Your task to perform on an android device: uninstall "Contacts" Image 0: 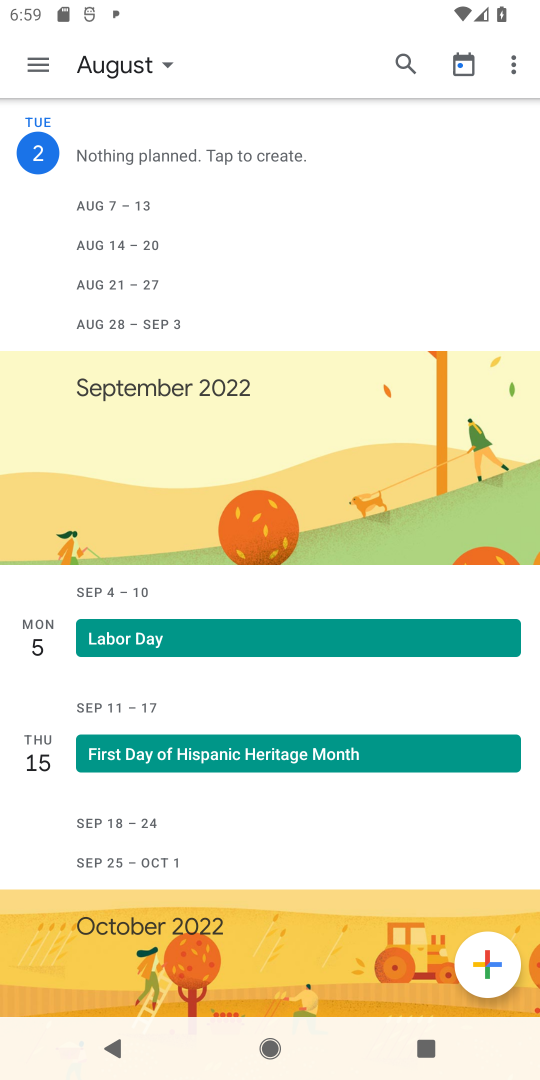
Step 0: press home button
Your task to perform on an android device: uninstall "Contacts" Image 1: 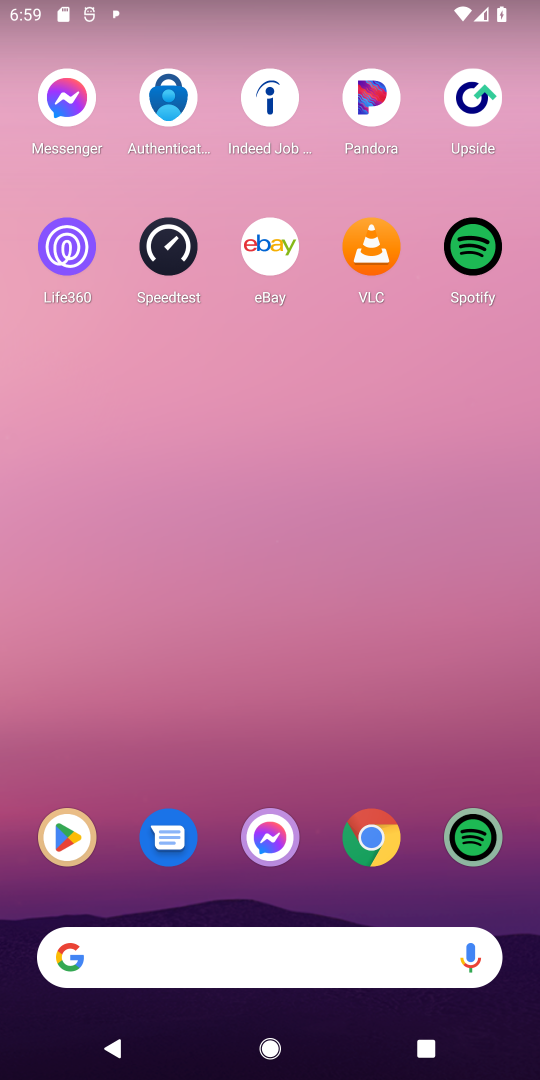
Step 1: click (74, 839)
Your task to perform on an android device: uninstall "Contacts" Image 2: 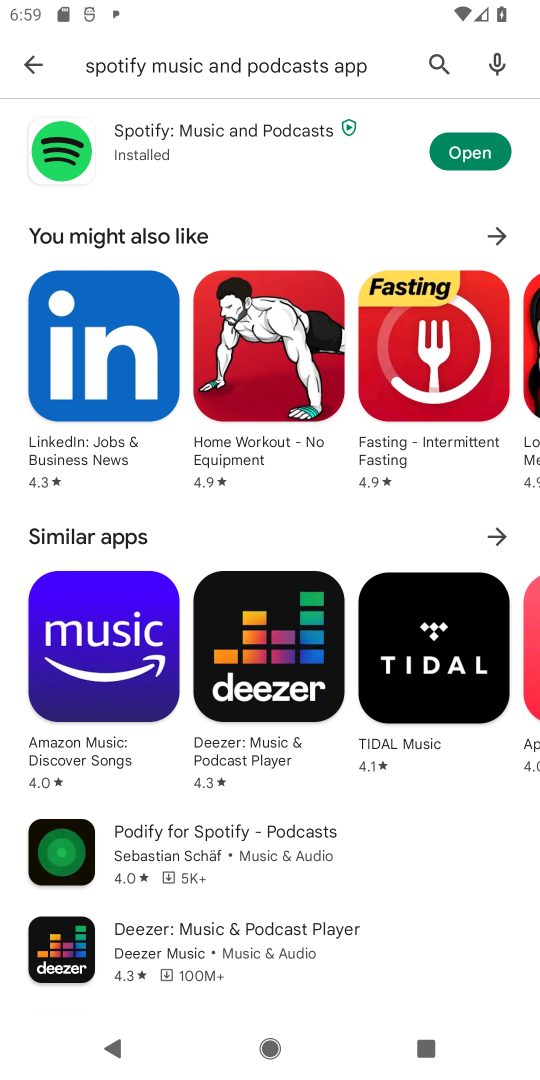
Step 2: click (439, 73)
Your task to perform on an android device: uninstall "Contacts" Image 3: 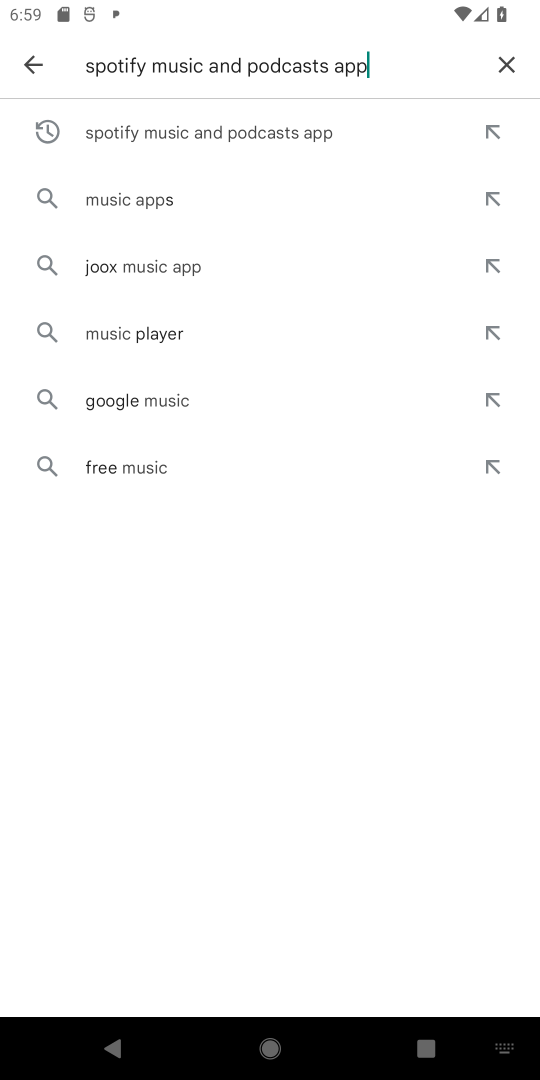
Step 3: click (500, 73)
Your task to perform on an android device: uninstall "Contacts" Image 4: 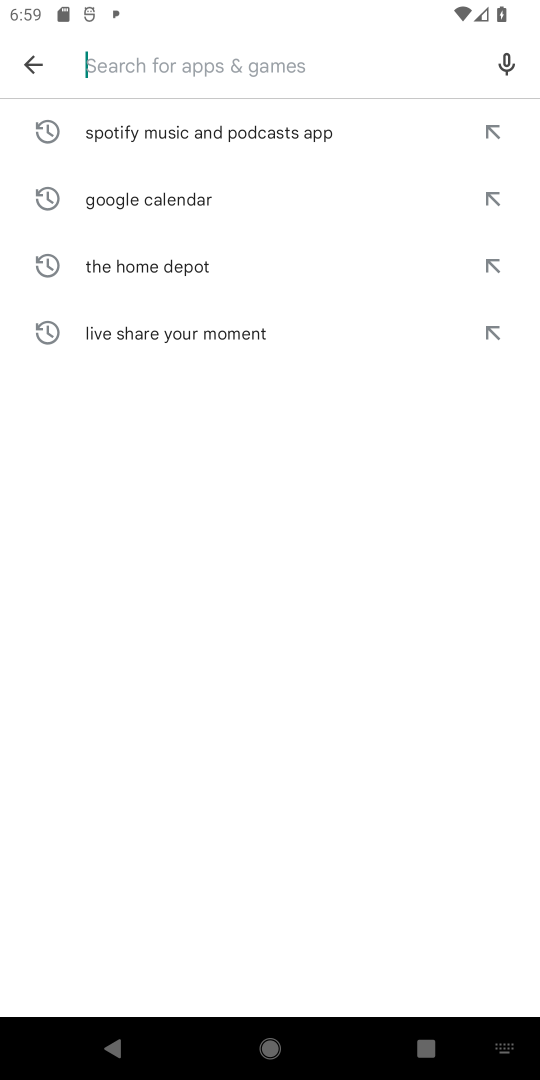
Step 4: type "Contacts"
Your task to perform on an android device: uninstall "Contacts" Image 5: 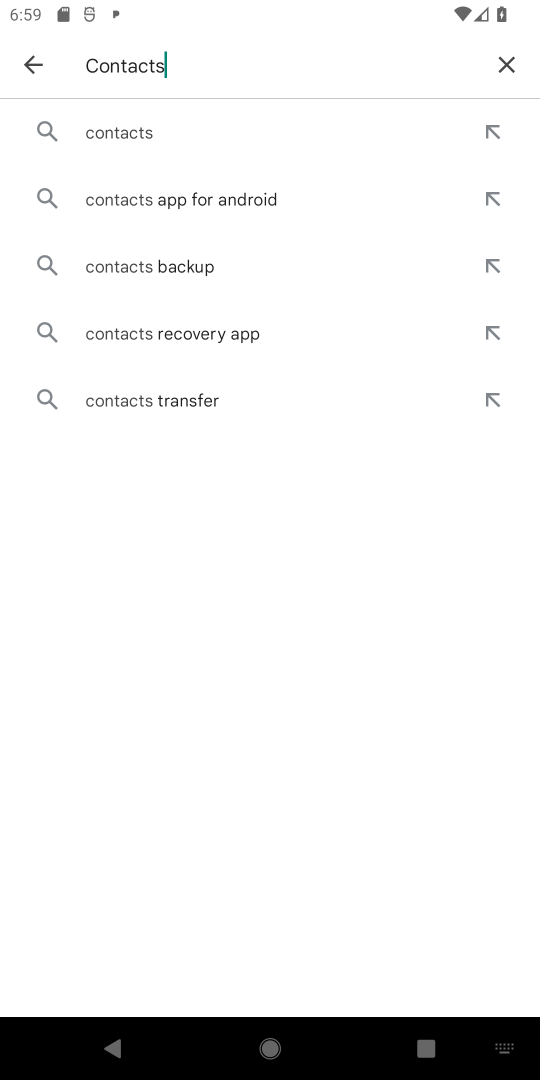
Step 5: click (137, 139)
Your task to perform on an android device: uninstall "Contacts" Image 6: 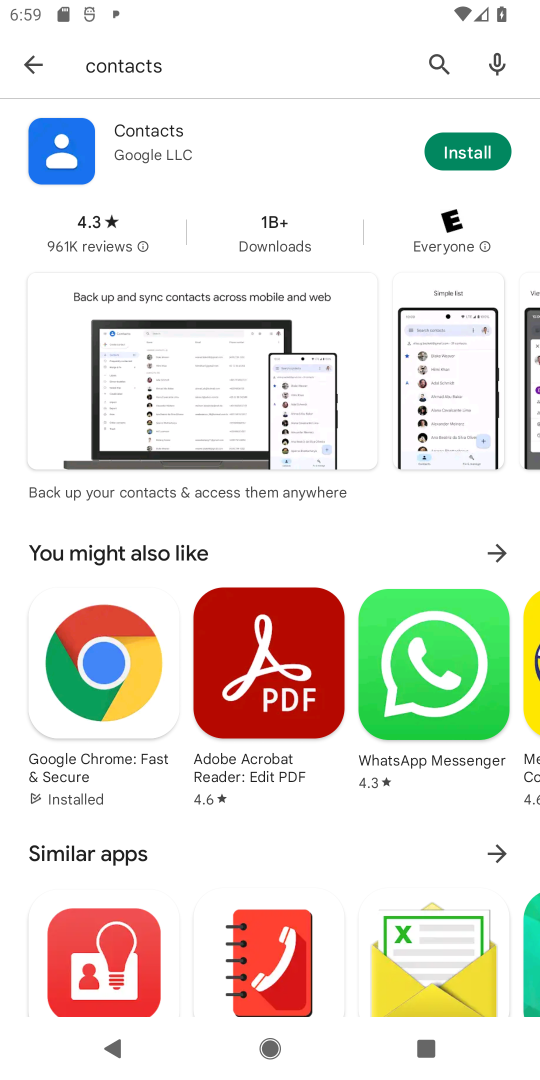
Step 6: task complete